Your task to perform on an android device: Go to location settings Image 0: 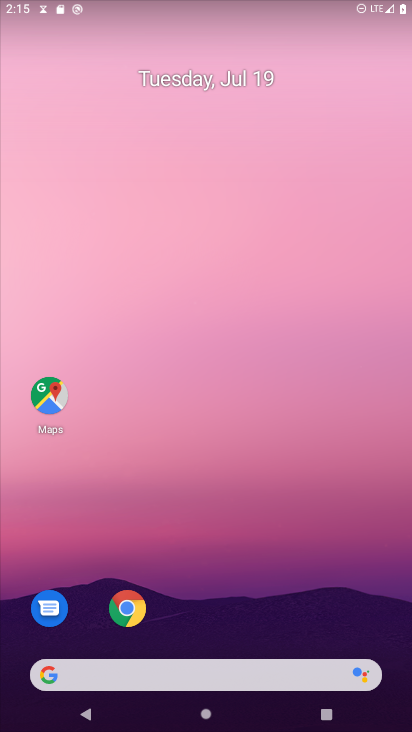
Step 0: drag from (313, 654) to (338, 21)
Your task to perform on an android device: Go to location settings Image 1: 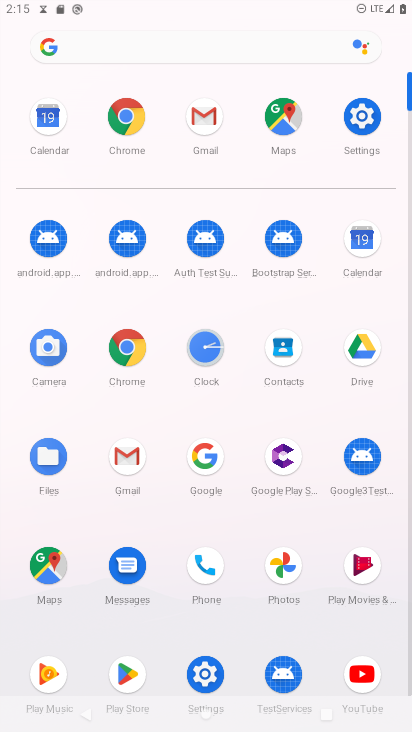
Step 1: click (354, 115)
Your task to perform on an android device: Go to location settings Image 2: 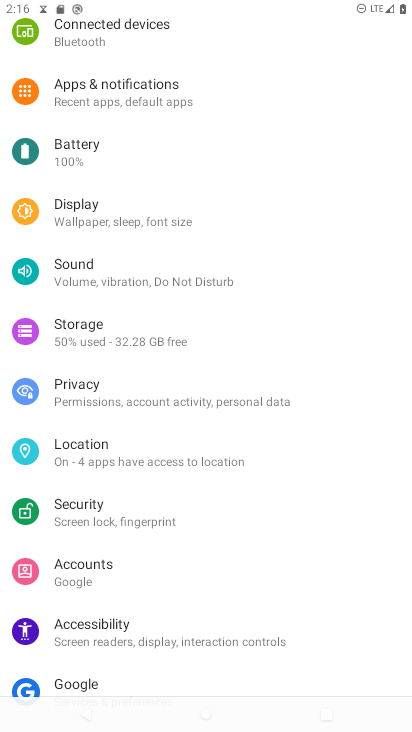
Step 2: click (115, 451)
Your task to perform on an android device: Go to location settings Image 3: 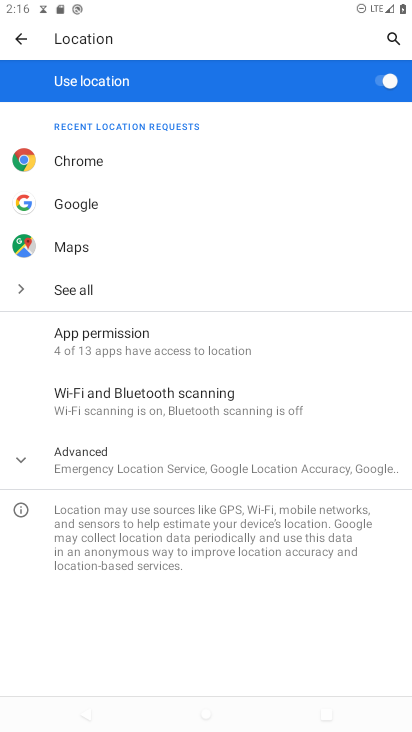
Step 3: task complete